Your task to perform on an android device: Go to Amazon Image 0: 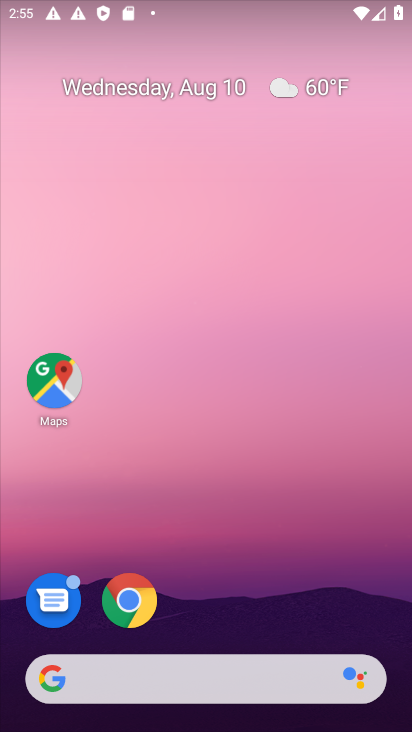
Step 0: click (57, 687)
Your task to perform on an android device: Go to Amazon Image 1: 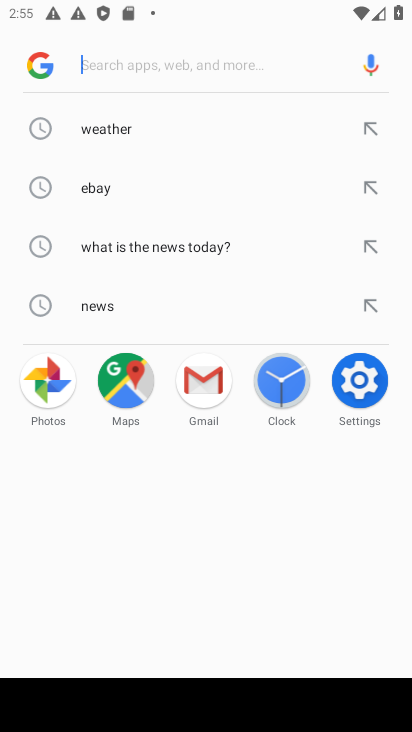
Step 1: type " Amazon"
Your task to perform on an android device: Go to Amazon Image 2: 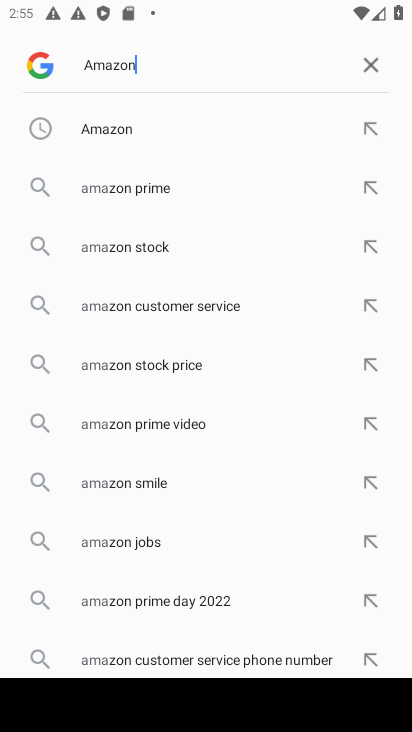
Step 2: press enter
Your task to perform on an android device: Go to Amazon Image 3: 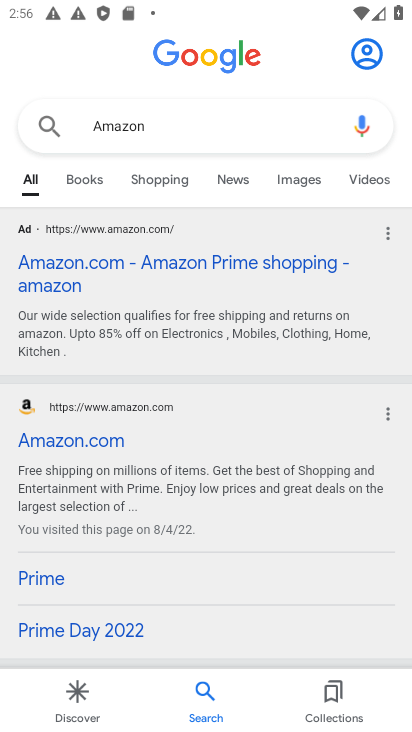
Step 3: click (167, 276)
Your task to perform on an android device: Go to Amazon Image 4: 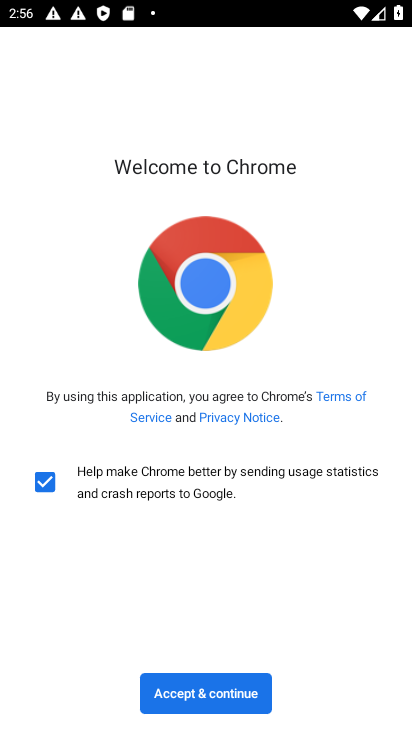
Step 4: click (204, 689)
Your task to perform on an android device: Go to Amazon Image 5: 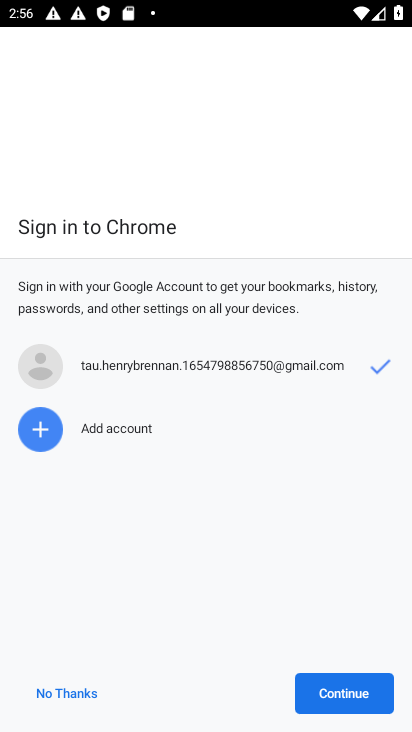
Step 5: click (341, 702)
Your task to perform on an android device: Go to Amazon Image 6: 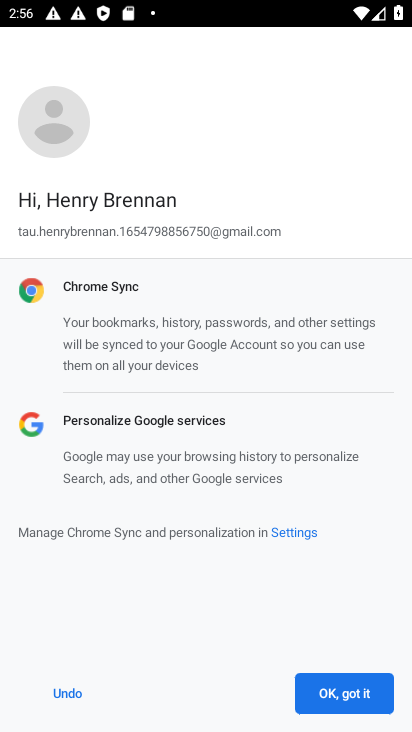
Step 6: click (361, 686)
Your task to perform on an android device: Go to Amazon Image 7: 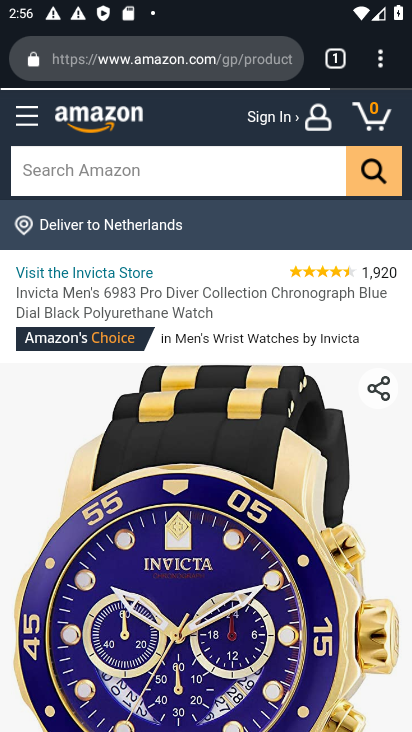
Step 7: task complete